Your task to perform on an android device: add a label to a message in the gmail app Image 0: 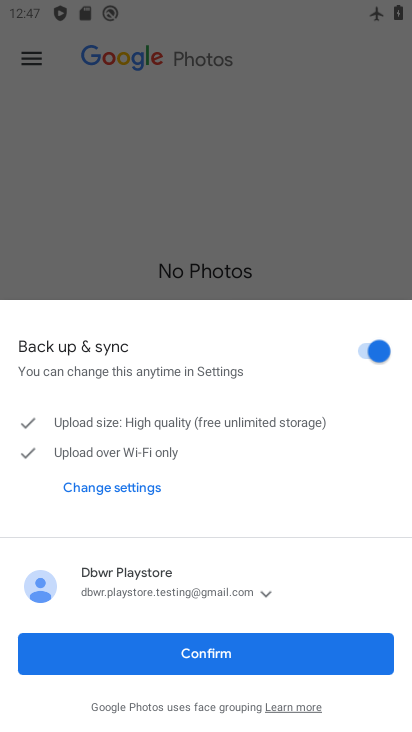
Step 0: press home button
Your task to perform on an android device: add a label to a message in the gmail app Image 1: 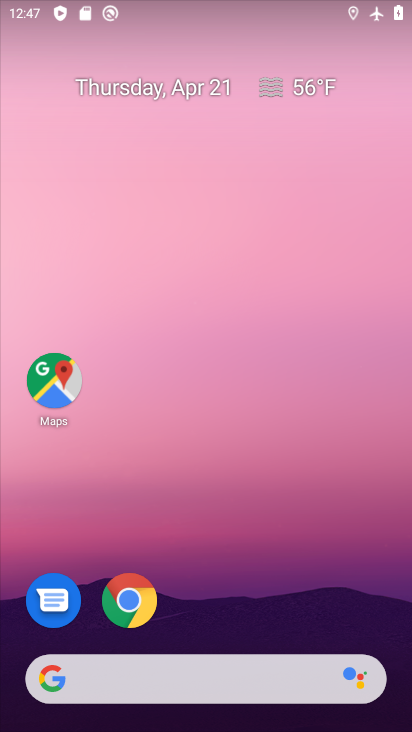
Step 1: click (364, 308)
Your task to perform on an android device: add a label to a message in the gmail app Image 2: 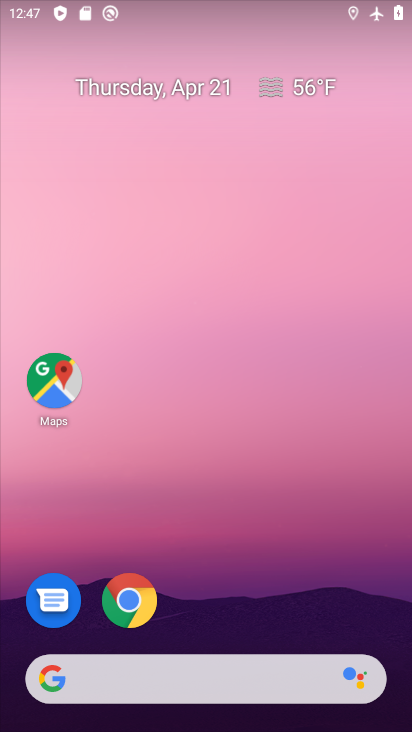
Step 2: click (402, 152)
Your task to perform on an android device: add a label to a message in the gmail app Image 3: 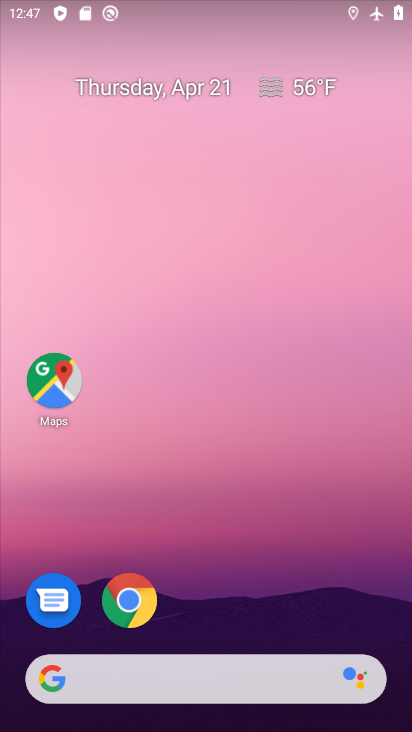
Step 3: drag from (377, 612) to (372, 122)
Your task to perform on an android device: add a label to a message in the gmail app Image 4: 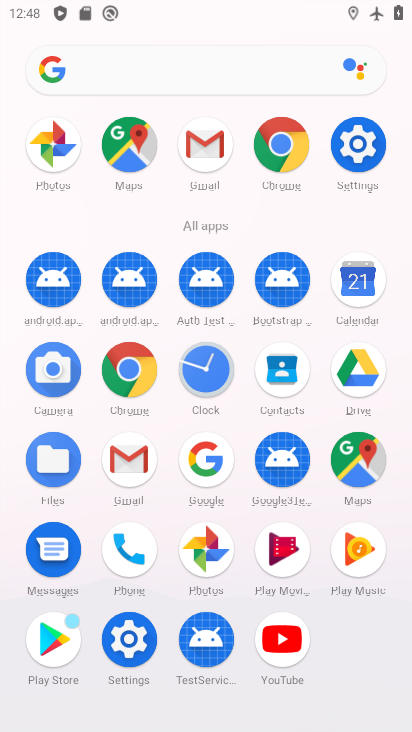
Step 4: click (203, 148)
Your task to perform on an android device: add a label to a message in the gmail app Image 5: 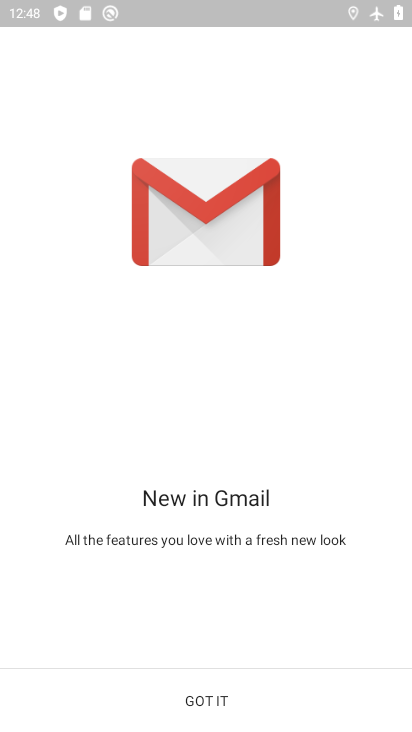
Step 5: click (206, 697)
Your task to perform on an android device: add a label to a message in the gmail app Image 6: 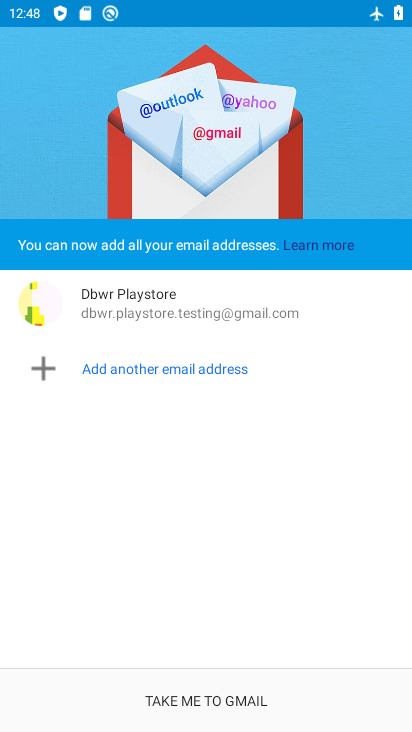
Step 6: click (206, 697)
Your task to perform on an android device: add a label to a message in the gmail app Image 7: 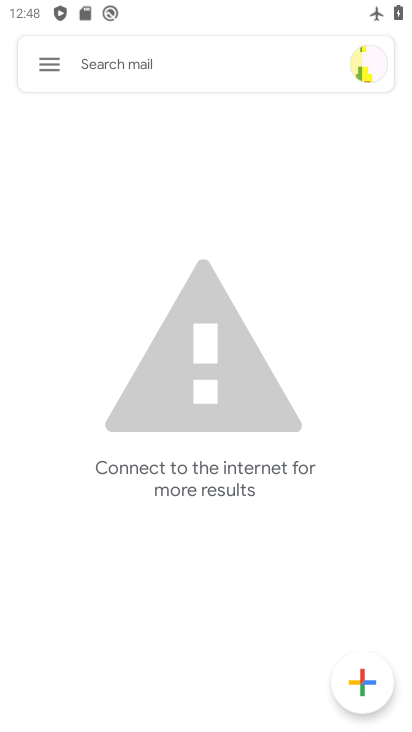
Step 7: task complete